Your task to perform on an android device: Clear all items from cart on target. Image 0: 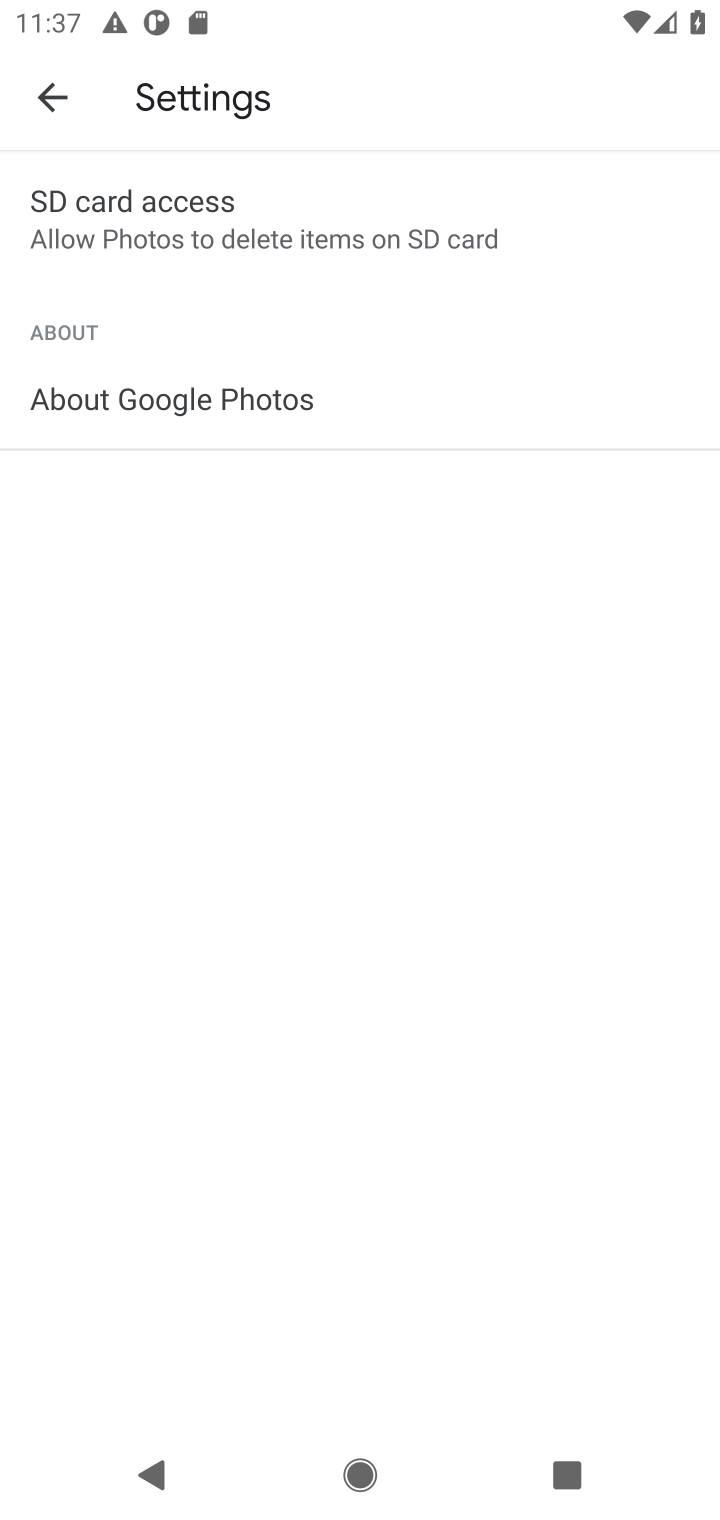
Step 0: press home button
Your task to perform on an android device: Clear all items from cart on target. Image 1: 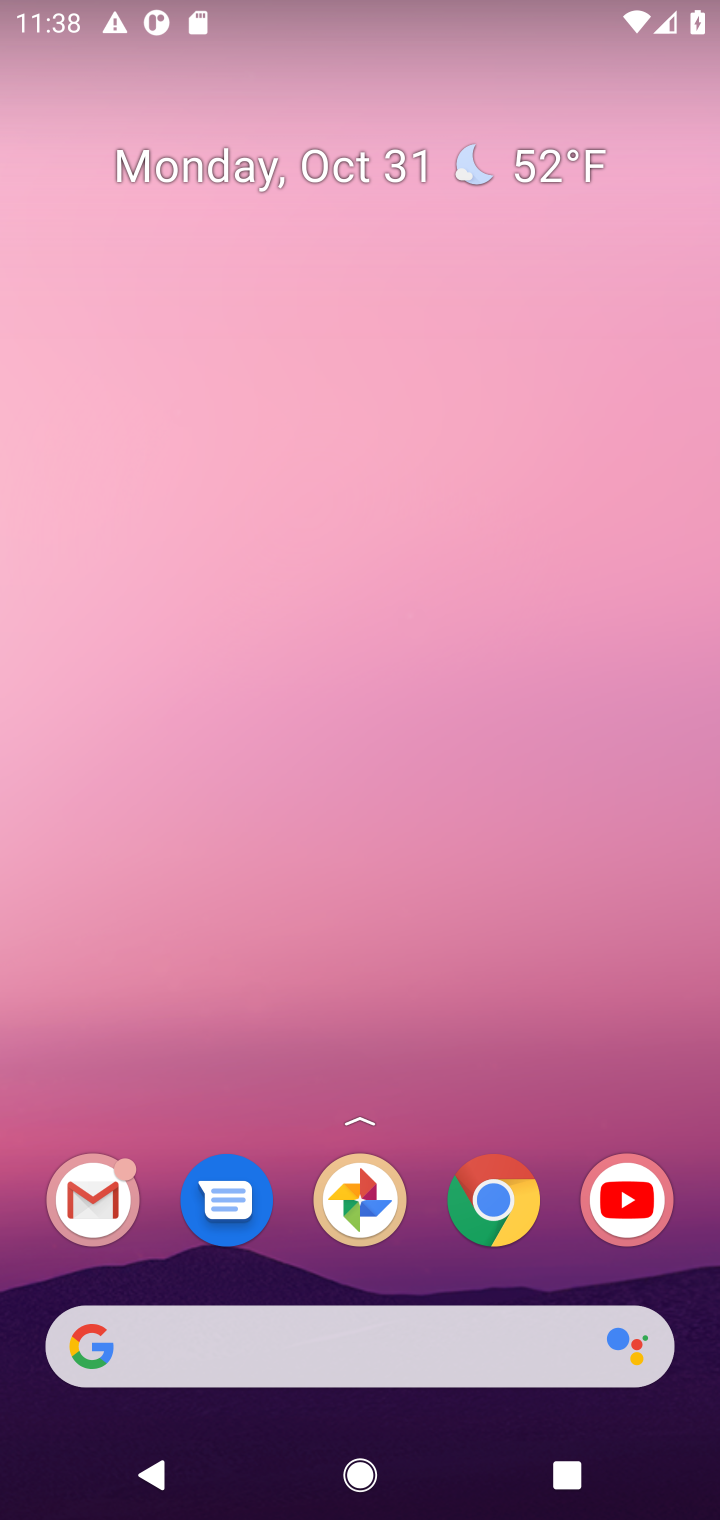
Step 1: click (493, 1203)
Your task to perform on an android device: Clear all items from cart on target. Image 2: 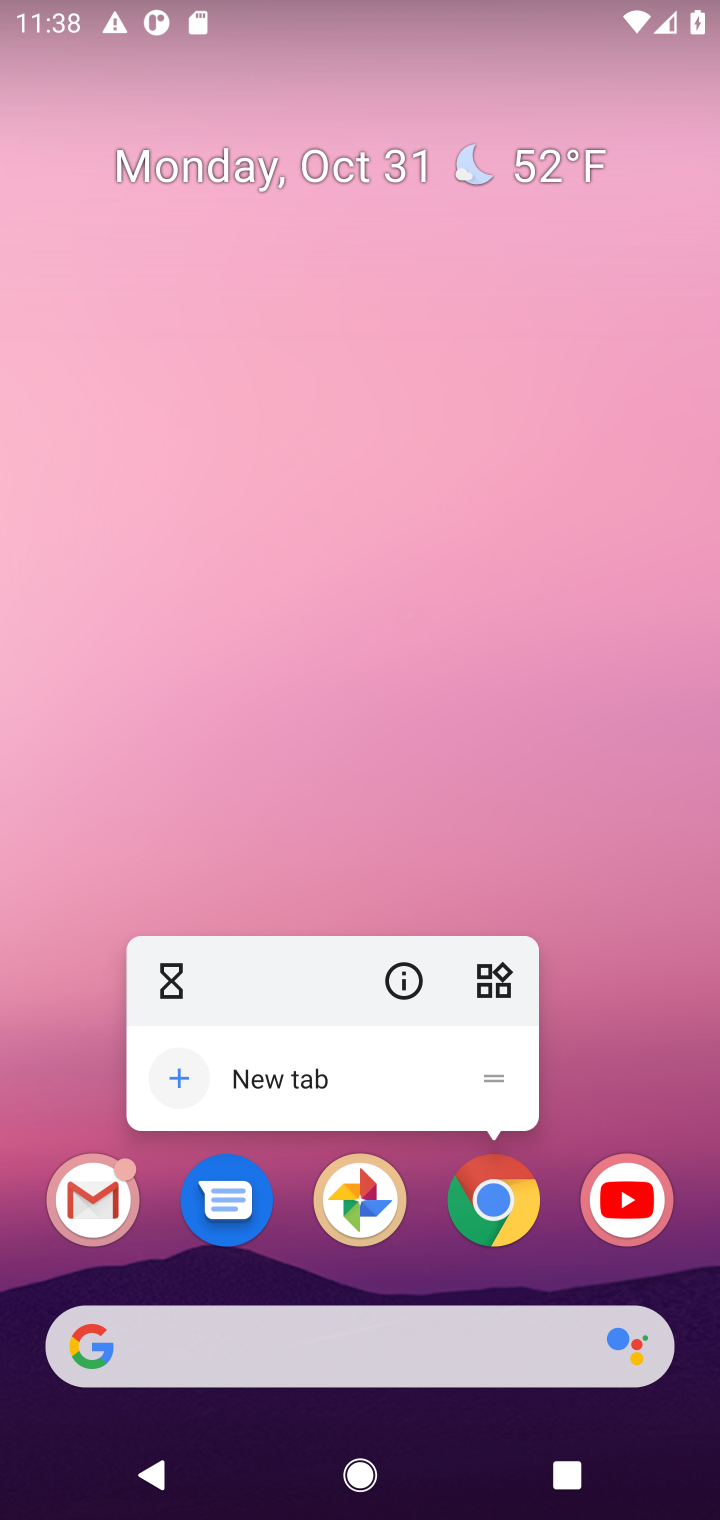
Step 2: click (493, 1203)
Your task to perform on an android device: Clear all items from cart on target. Image 3: 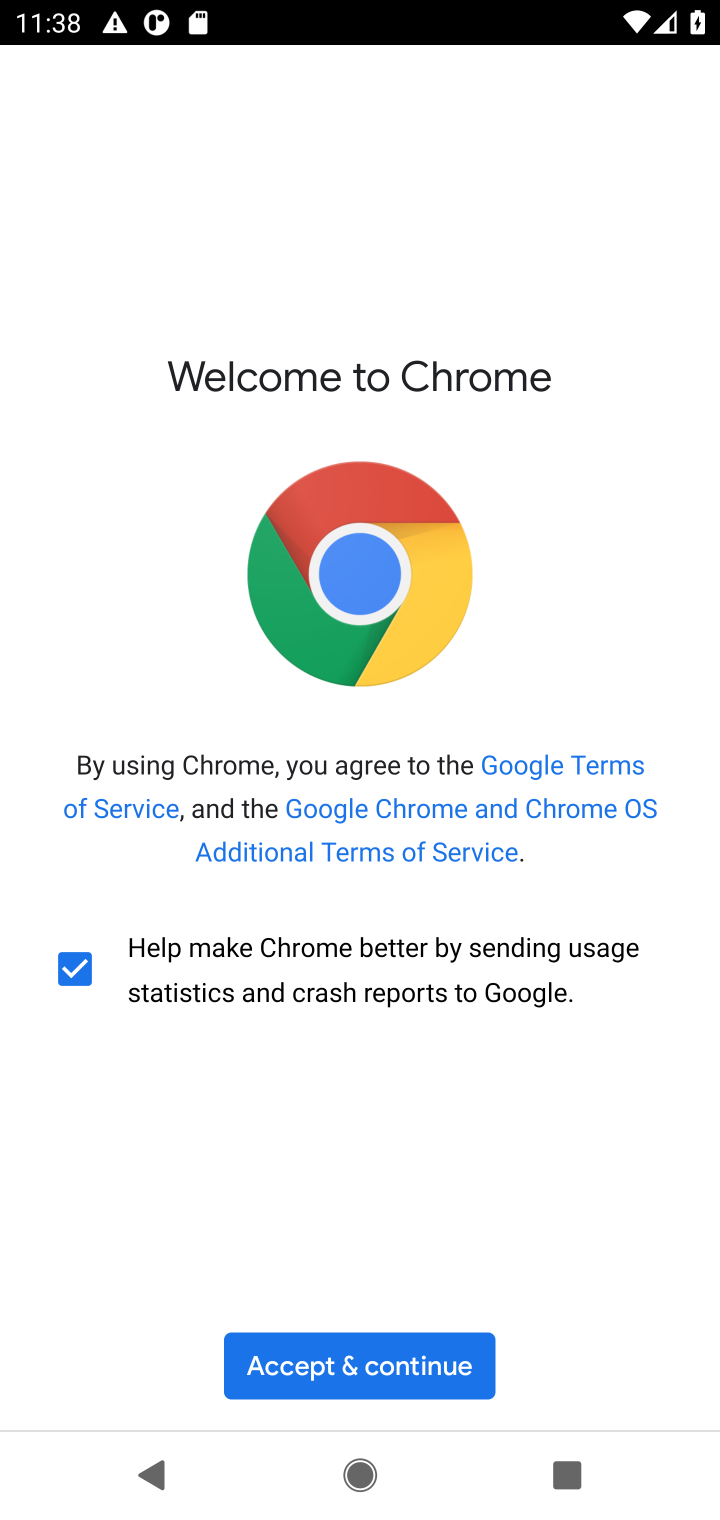
Step 3: click (325, 1359)
Your task to perform on an android device: Clear all items from cart on target. Image 4: 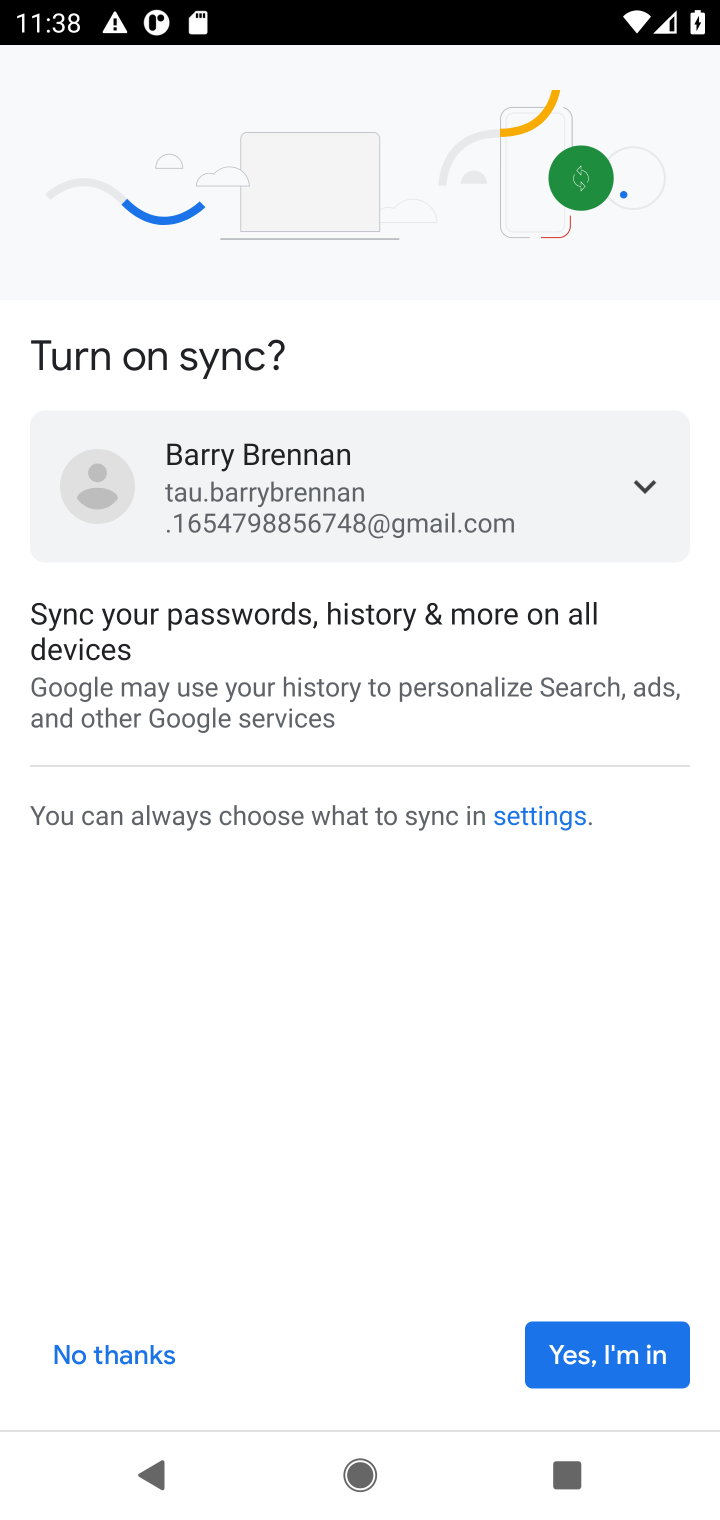
Step 4: click (596, 1352)
Your task to perform on an android device: Clear all items from cart on target. Image 5: 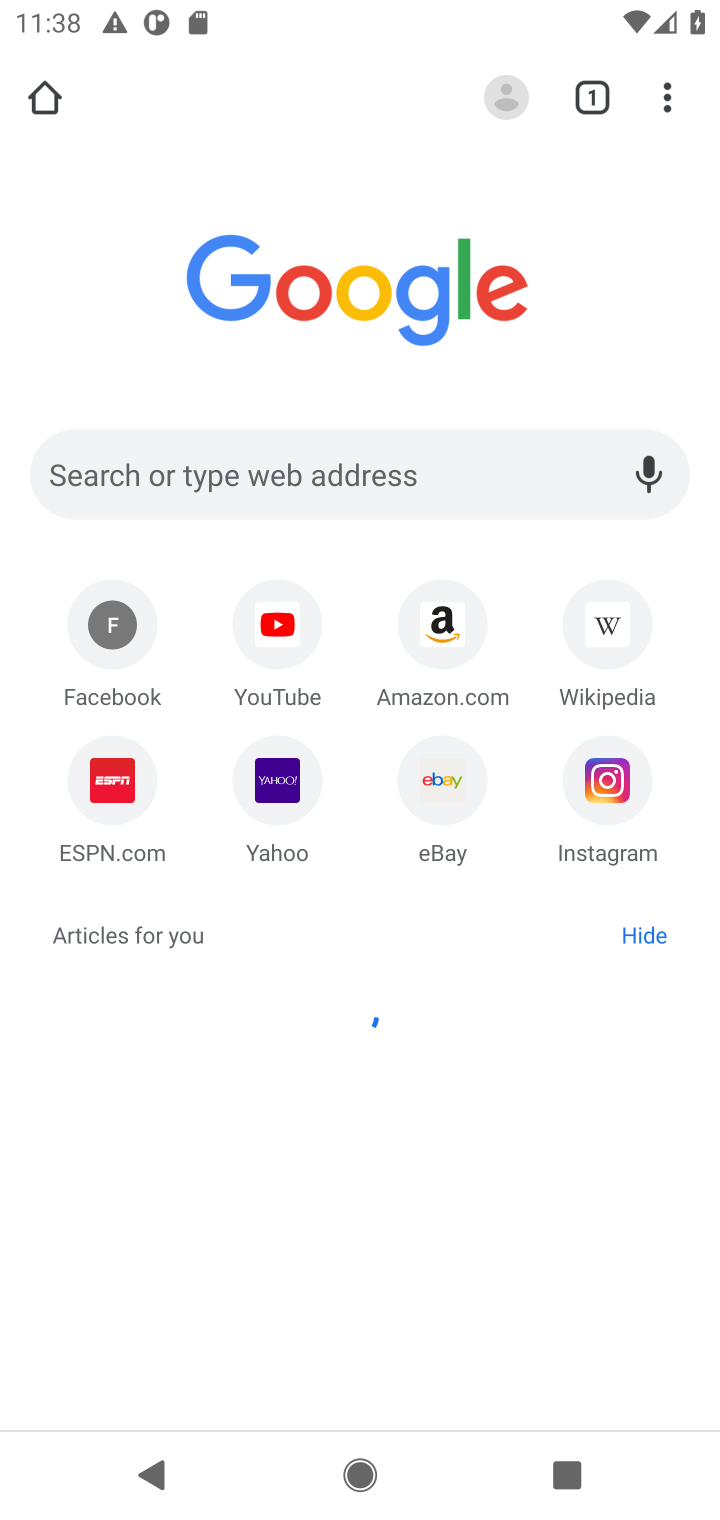
Step 5: click (313, 474)
Your task to perform on an android device: Clear all items from cart on target. Image 6: 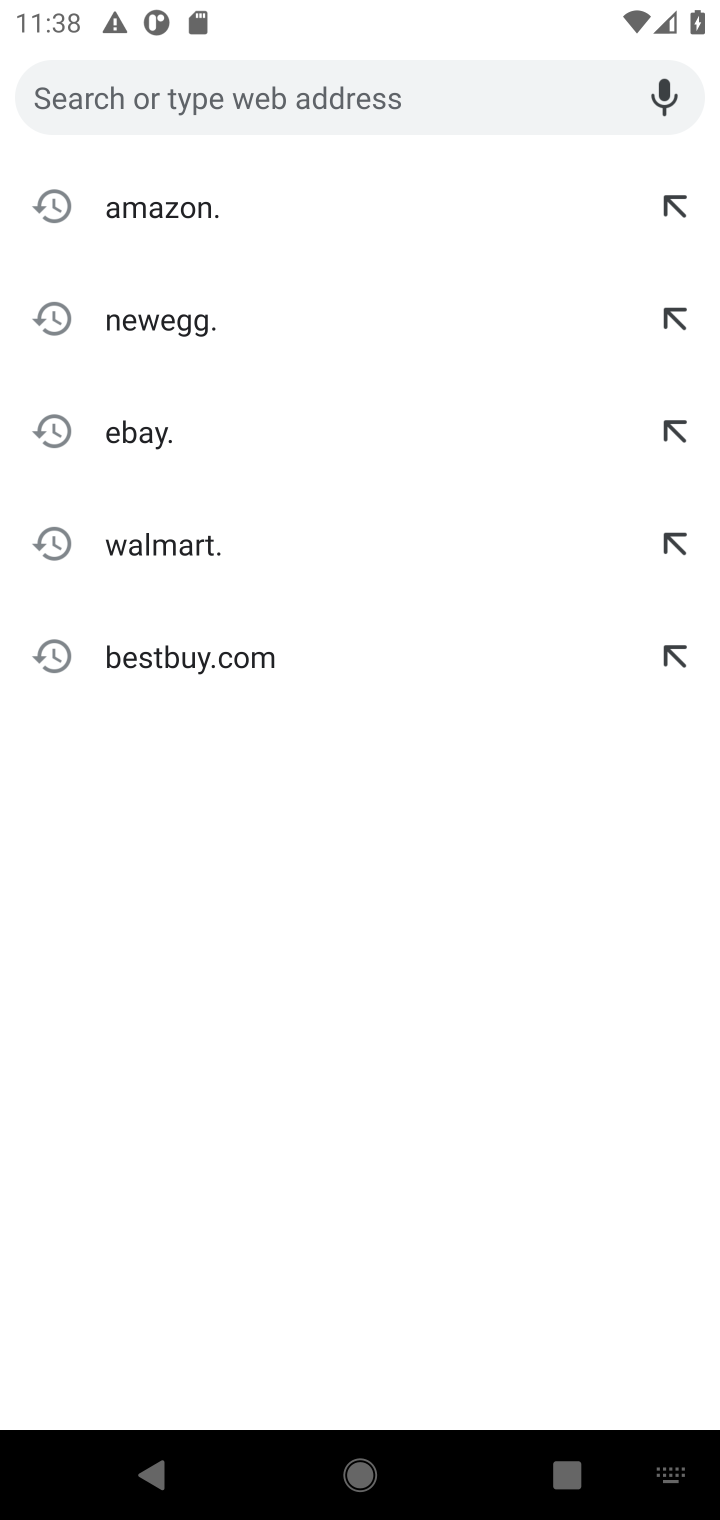
Step 6: type "target.com"
Your task to perform on an android device: Clear all items from cart on target. Image 7: 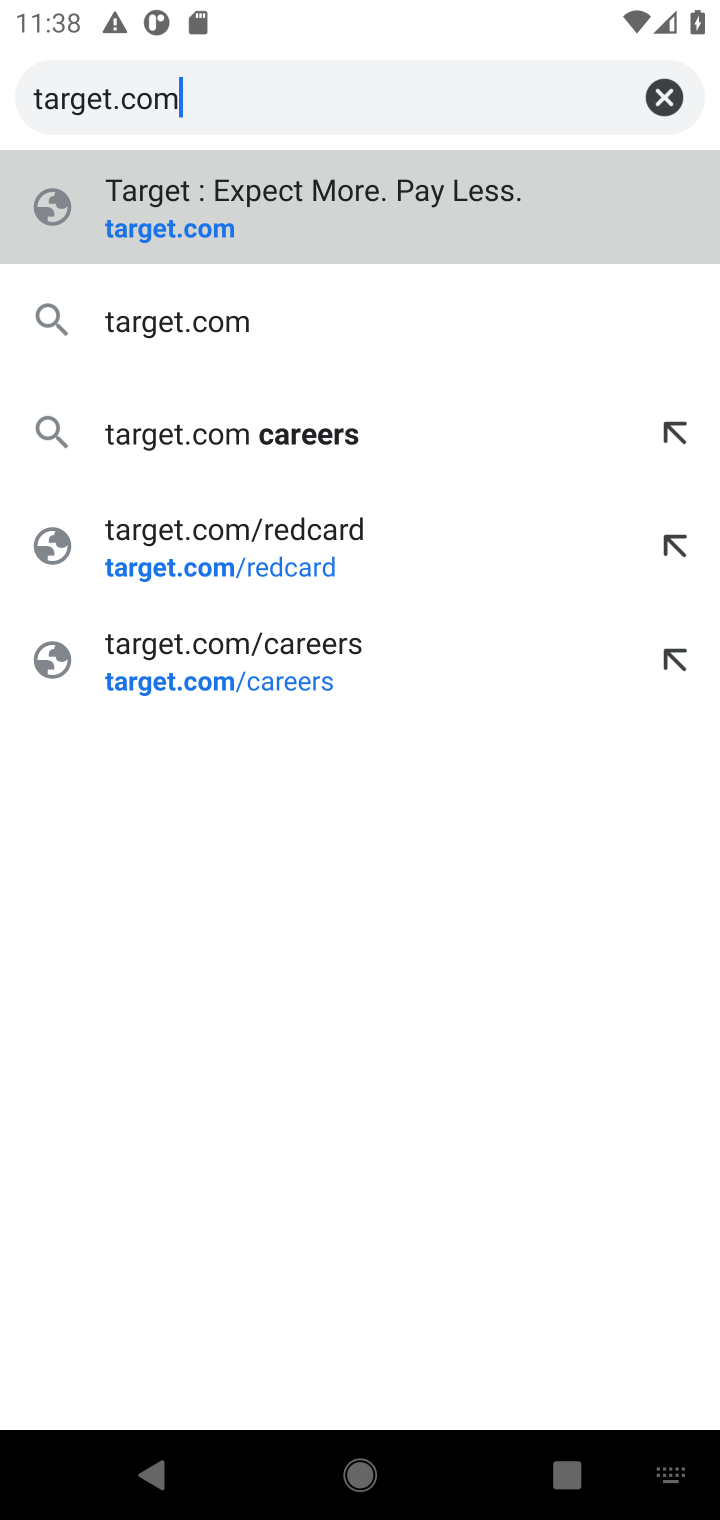
Step 7: click (128, 327)
Your task to perform on an android device: Clear all items from cart on target. Image 8: 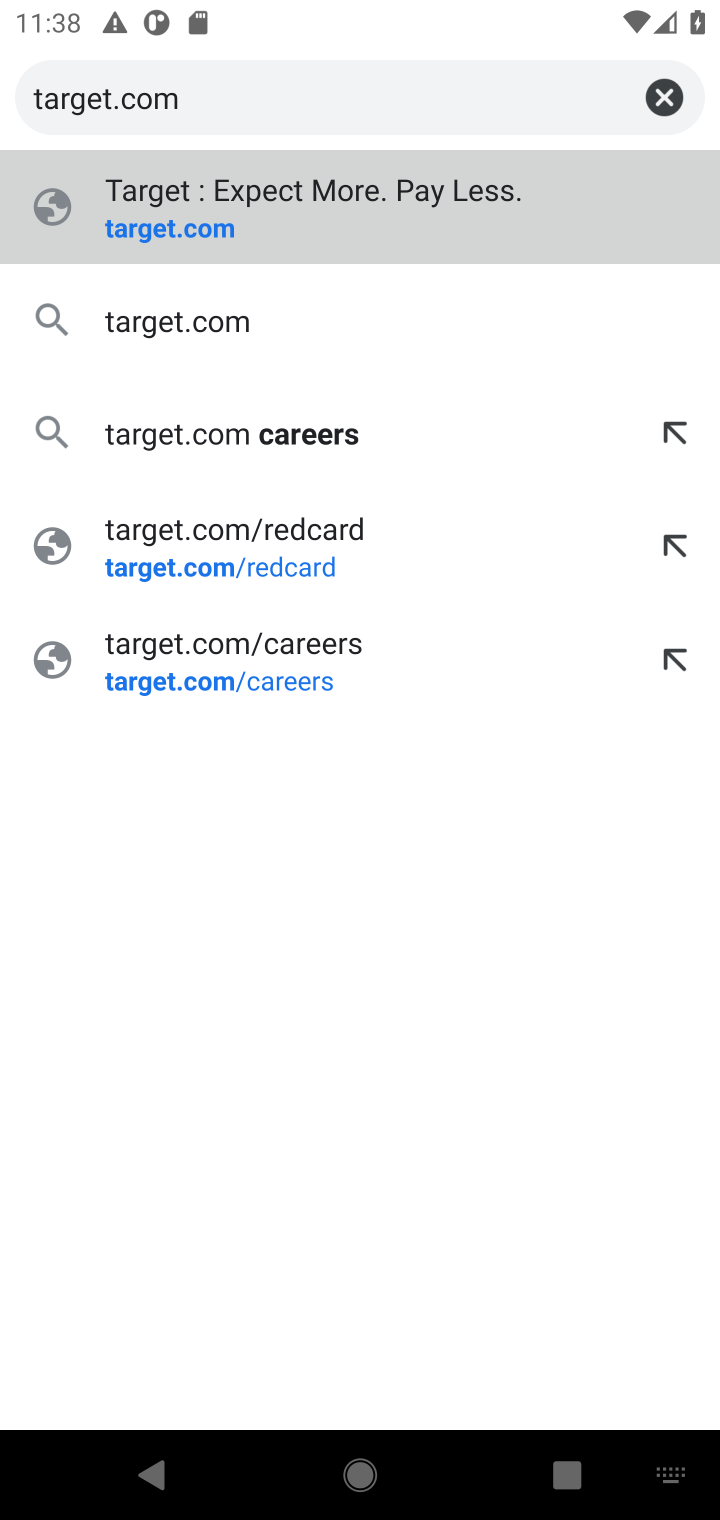
Step 8: click (209, 229)
Your task to perform on an android device: Clear all items from cart on target. Image 9: 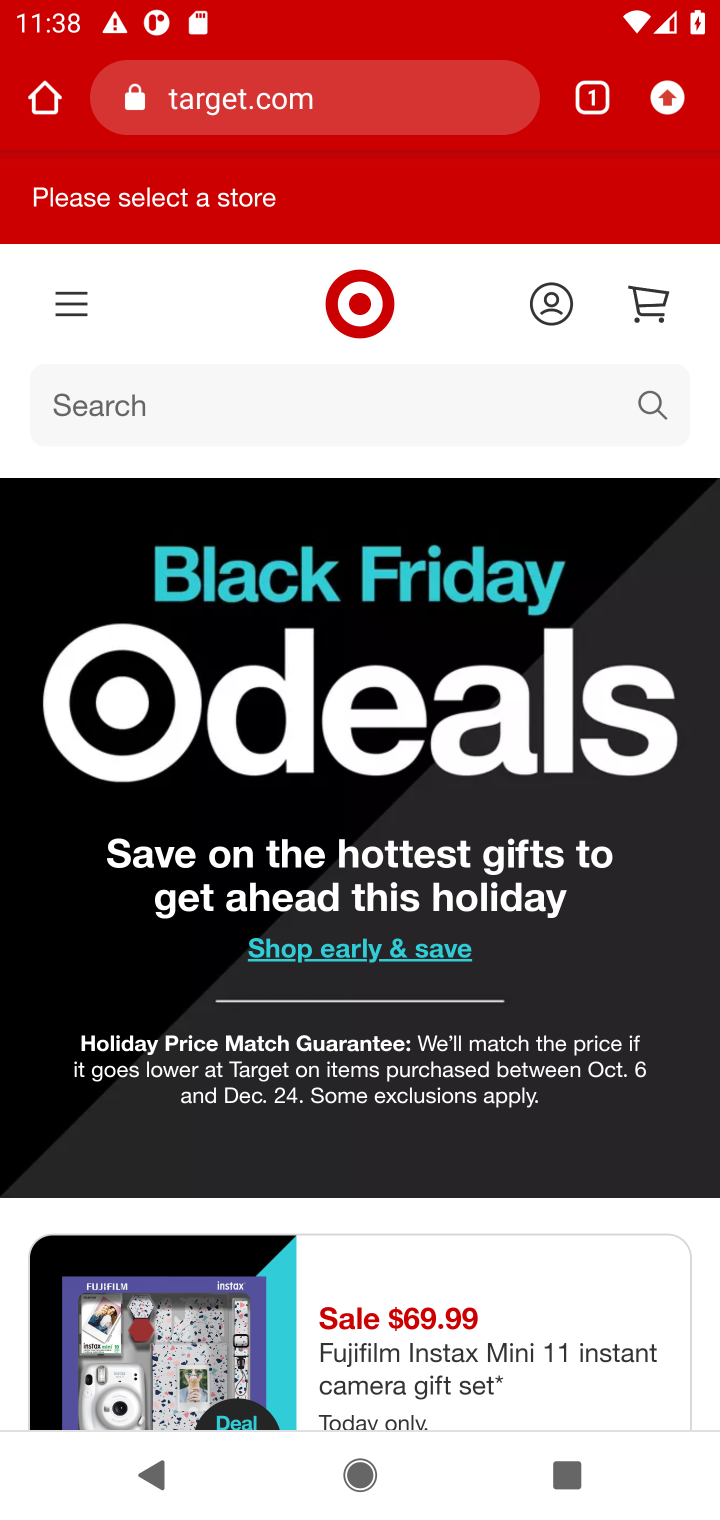
Step 9: click (648, 313)
Your task to perform on an android device: Clear all items from cart on target. Image 10: 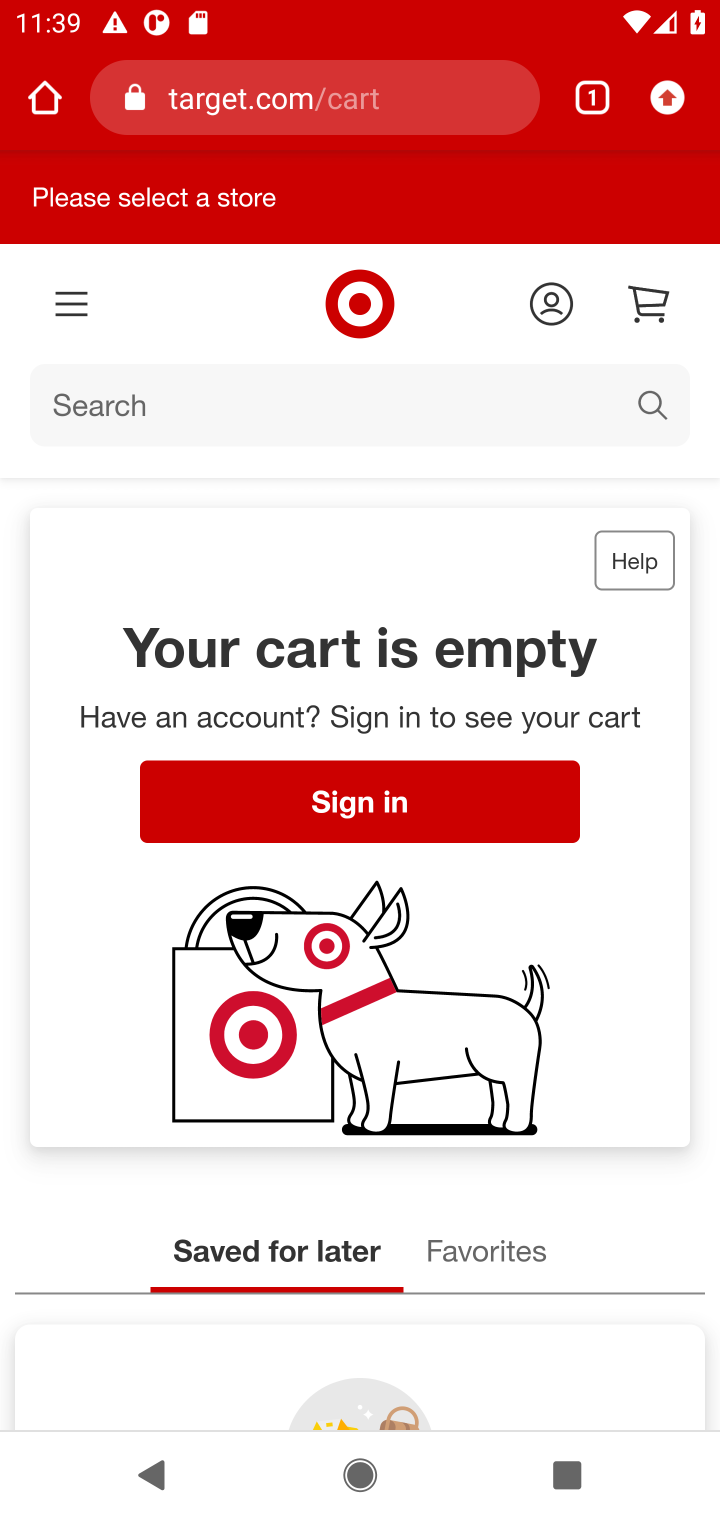
Step 10: task complete